Your task to perform on an android device: toggle priority inbox in the gmail app Image 0: 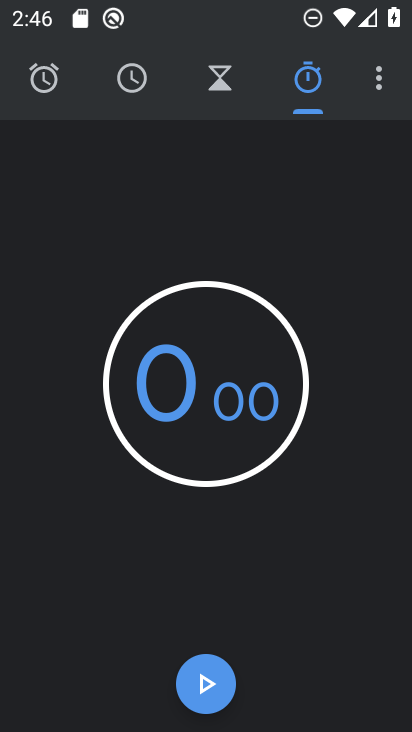
Step 0: press home button
Your task to perform on an android device: toggle priority inbox in the gmail app Image 1: 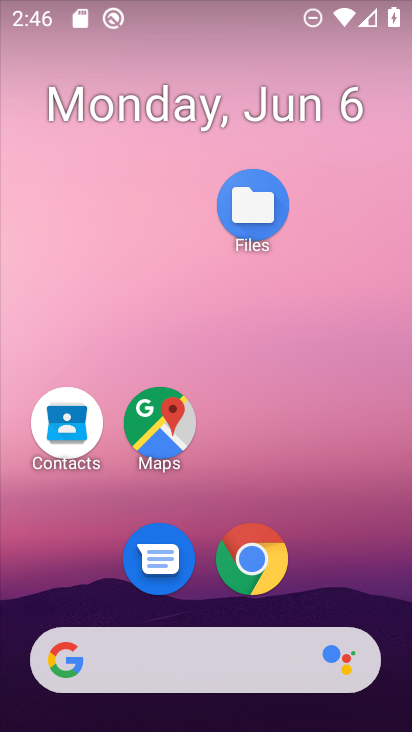
Step 1: drag from (231, 646) to (262, 201)
Your task to perform on an android device: toggle priority inbox in the gmail app Image 2: 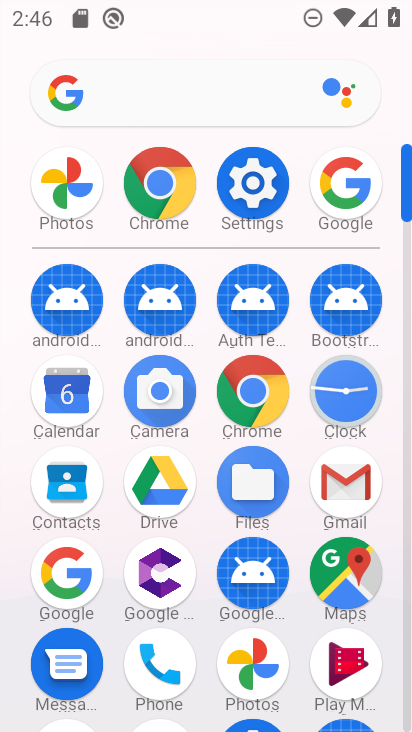
Step 2: click (353, 487)
Your task to perform on an android device: toggle priority inbox in the gmail app Image 3: 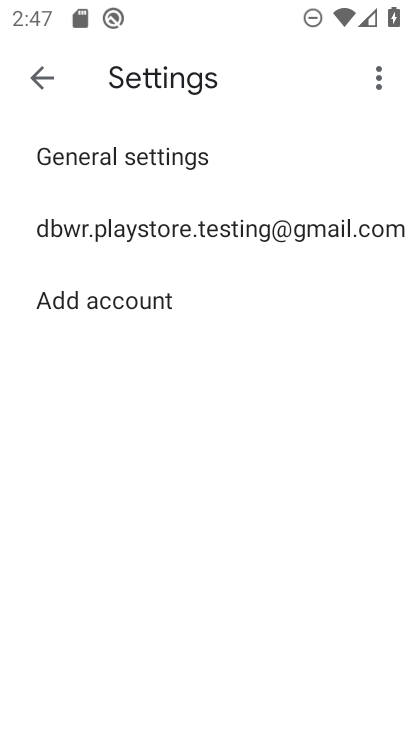
Step 3: click (142, 240)
Your task to perform on an android device: toggle priority inbox in the gmail app Image 4: 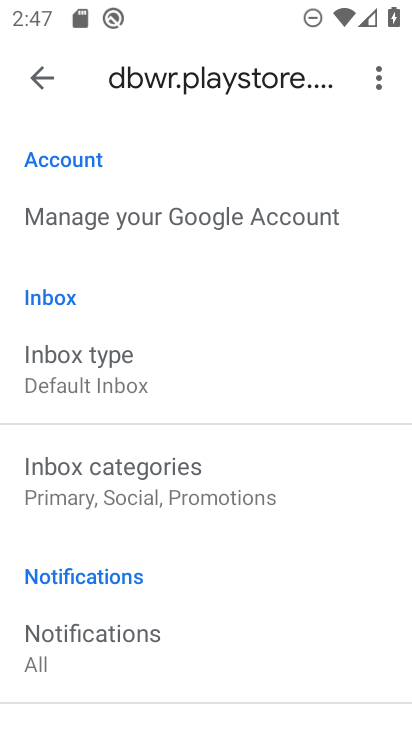
Step 4: click (140, 358)
Your task to perform on an android device: toggle priority inbox in the gmail app Image 5: 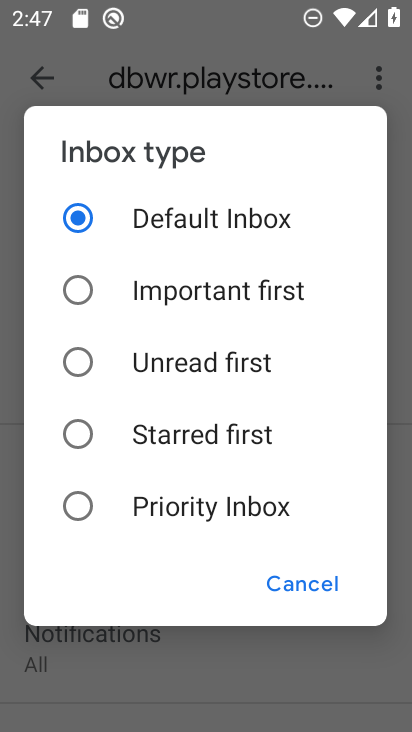
Step 5: click (155, 510)
Your task to perform on an android device: toggle priority inbox in the gmail app Image 6: 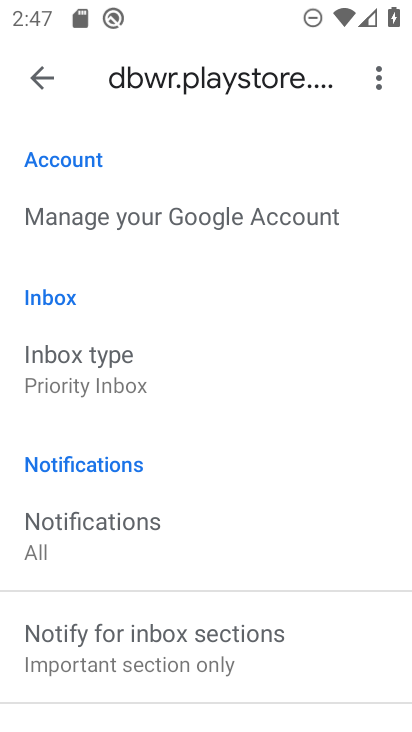
Step 6: task complete